Your task to perform on an android device: Open Amazon Image 0: 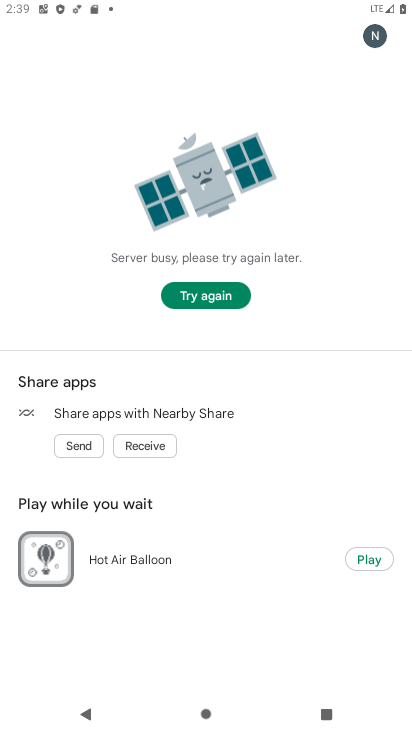
Step 0: press home button
Your task to perform on an android device: Open Amazon Image 1: 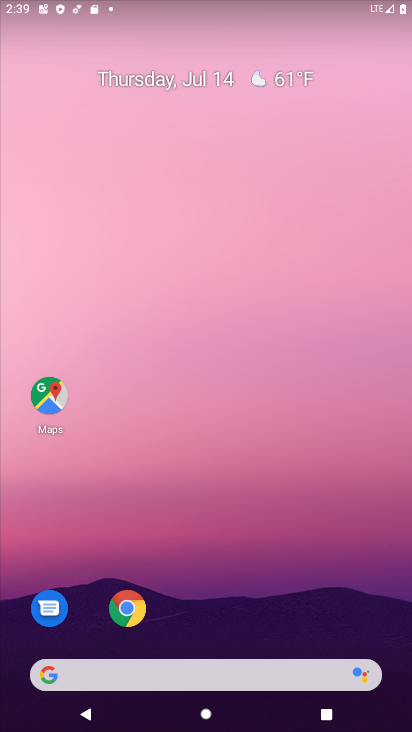
Step 1: click (134, 610)
Your task to perform on an android device: Open Amazon Image 2: 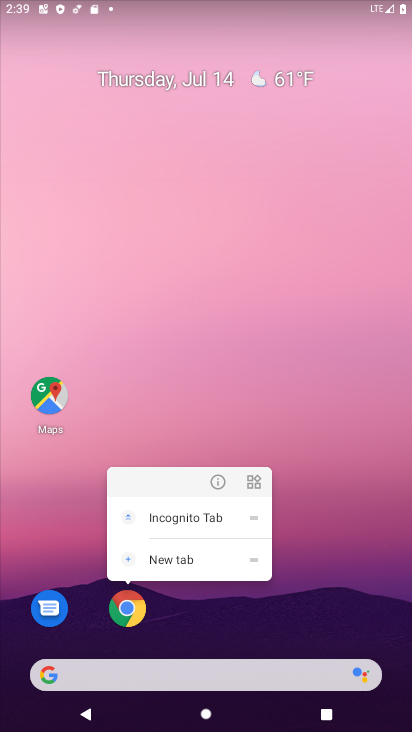
Step 2: click (134, 610)
Your task to perform on an android device: Open Amazon Image 3: 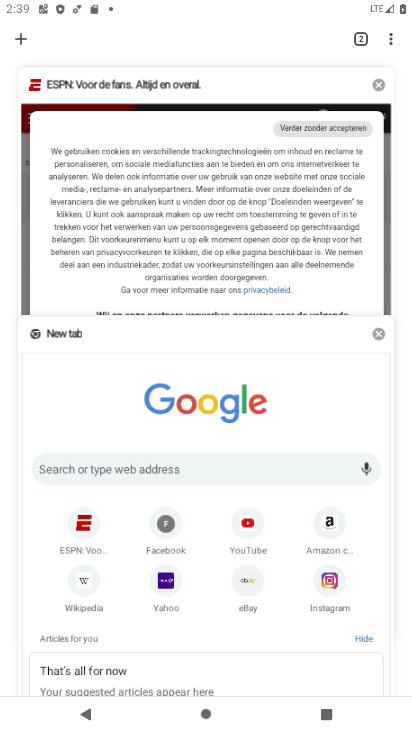
Step 3: click (334, 533)
Your task to perform on an android device: Open Amazon Image 4: 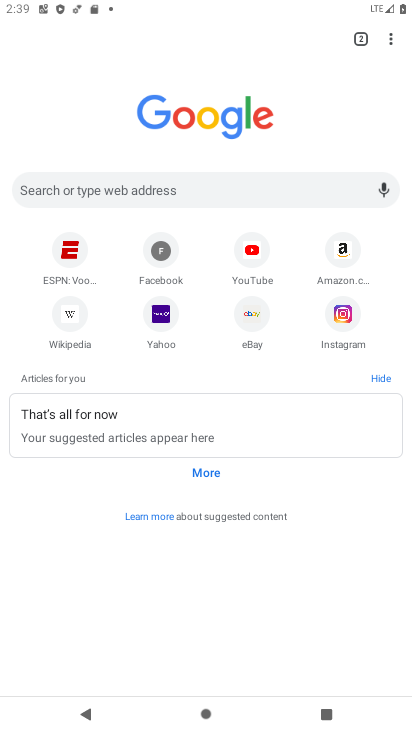
Step 4: click (343, 255)
Your task to perform on an android device: Open Amazon Image 5: 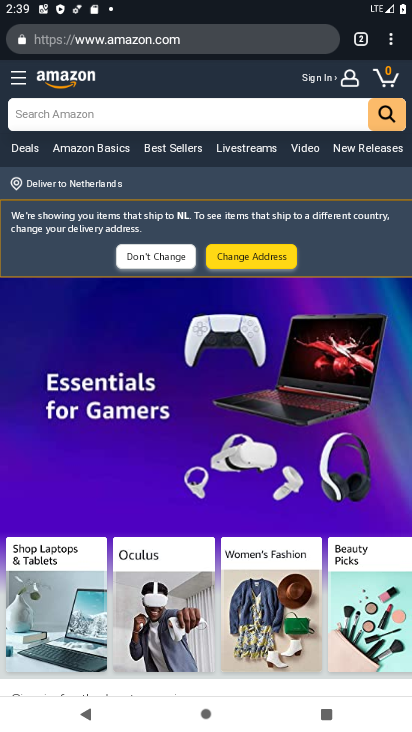
Step 5: task complete